Your task to perform on an android device: open chrome and create a bookmark for the current page Image 0: 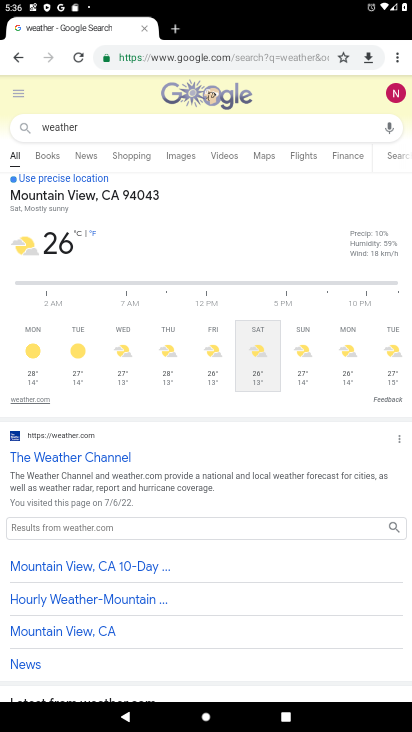
Step 0: click (347, 58)
Your task to perform on an android device: open chrome and create a bookmark for the current page Image 1: 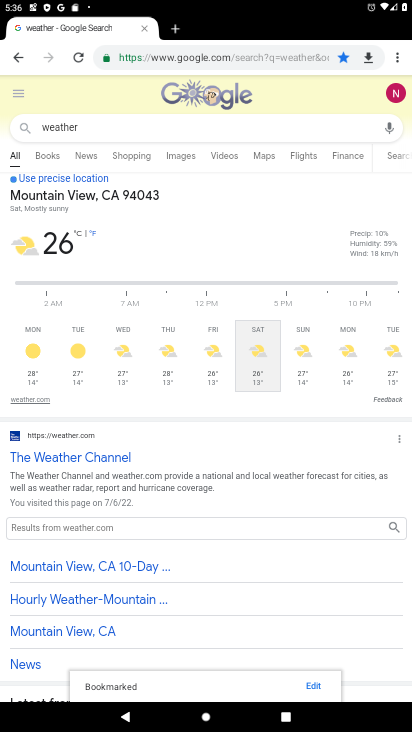
Step 1: task complete